Your task to perform on an android device: empty trash in google photos Image 0: 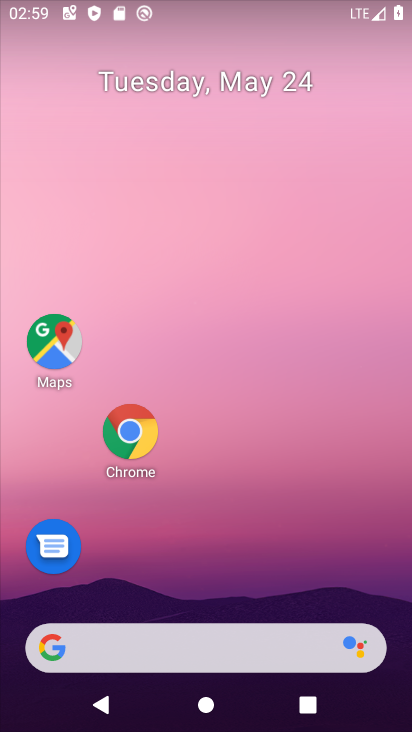
Step 0: drag from (228, 502) to (313, 97)
Your task to perform on an android device: empty trash in google photos Image 1: 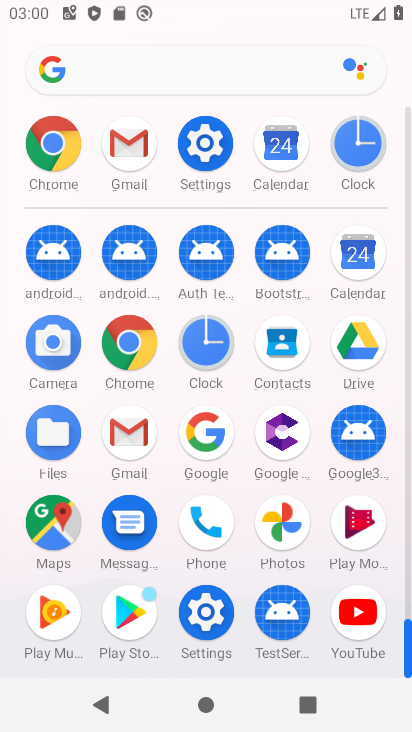
Step 1: click (284, 515)
Your task to perform on an android device: empty trash in google photos Image 2: 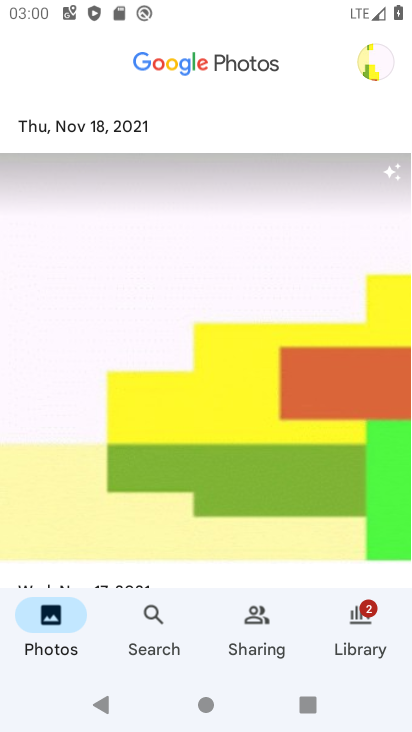
Step 2: click (376, 606)
Your task to perform on an android device: empty trash in google photos Image 3: 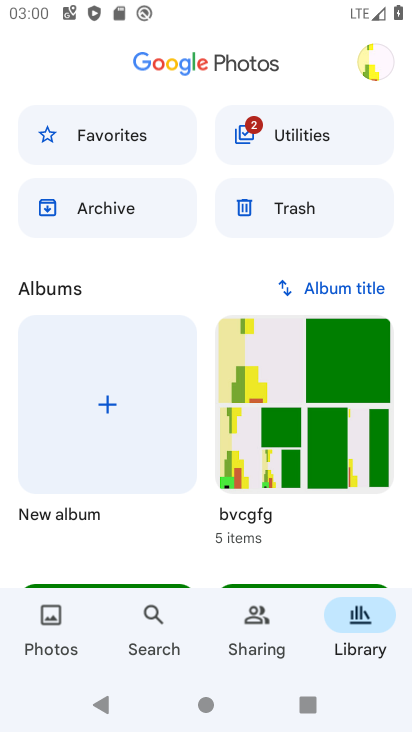
Step 3: click (313, 216)
Your task to perform on an android device: empty trash in google photos Image 4: 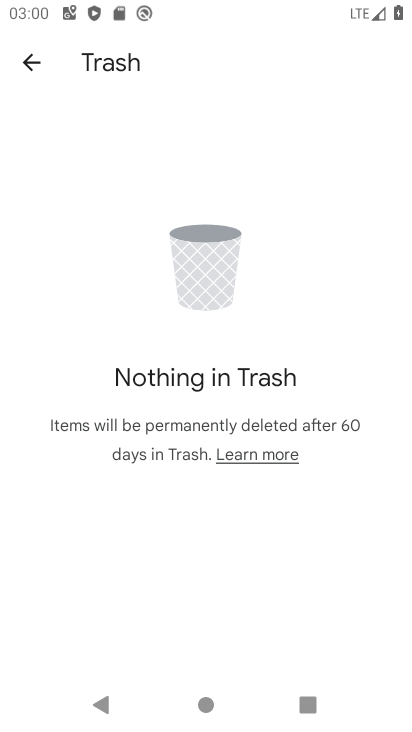
Step 4: task complete